Your task to perform on an android device: delete browsing data in the chrome app Image 0: 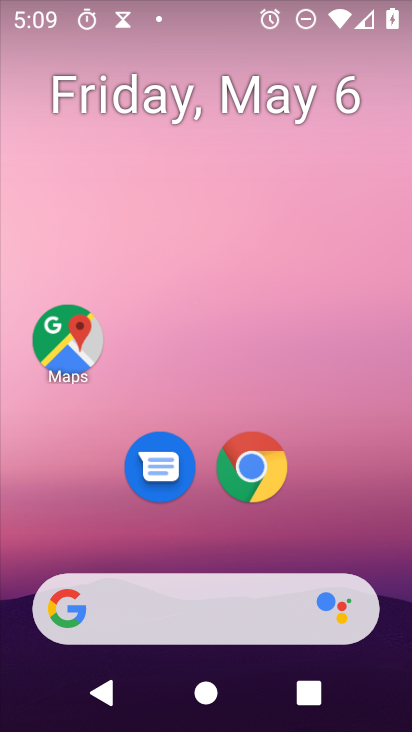
Step 0: drag from (294, 476) to (264, 215)
Your task to perform on an android device: delete browsing data in the chrome app Image 1: 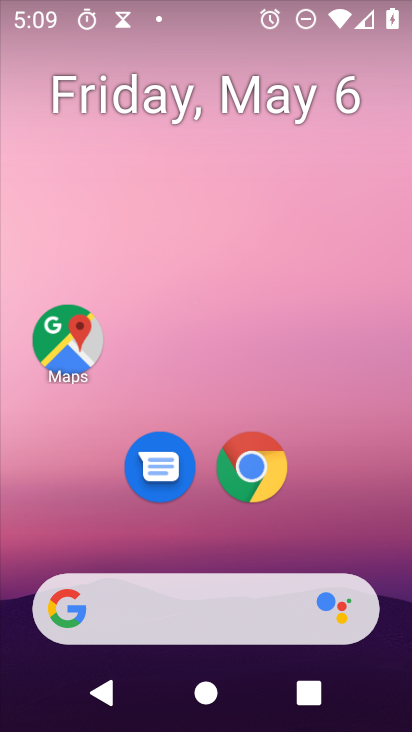
Step 1: drag from (333, 527) to (309, 87)
Your task to perform on an android device: delete browsing data in the chrome app Image 2: 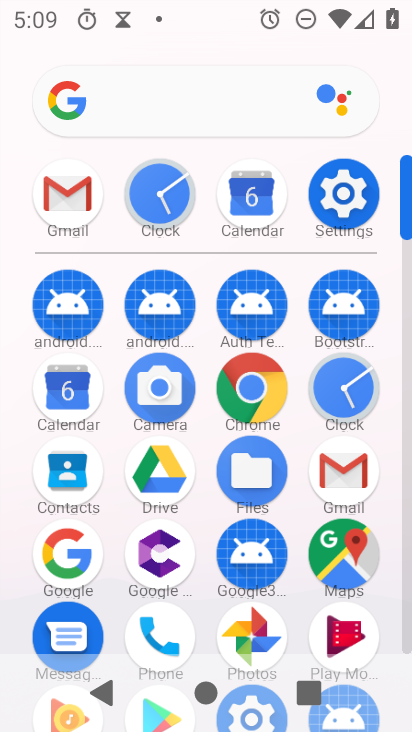
Step 2: click (406, 188)
Your task to perform on an android device: delete browsing data in the chrome app Image 3: 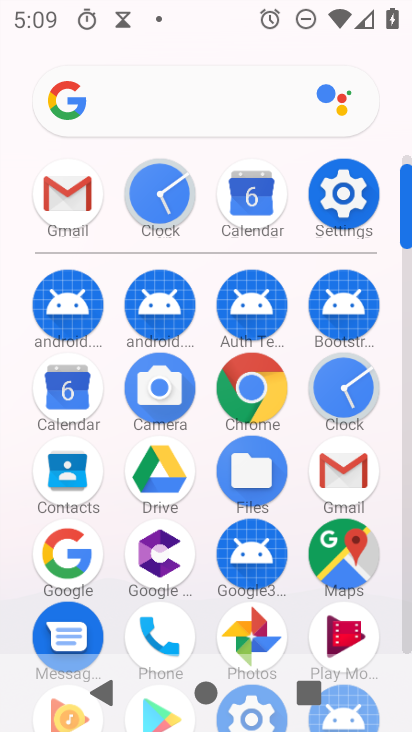
Step 3: drag from (203, 615) to (164, 318)
Your task to perform on an android device: delete browsing data in the chrome app Image 4: 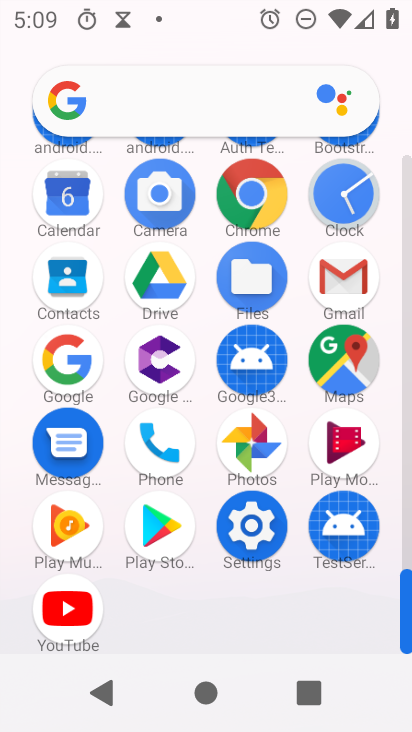
Step 4: drag from (218, 572) to (235, 281)
Your task to perform on an android device: delete browsing data in the chrome app Image 5: 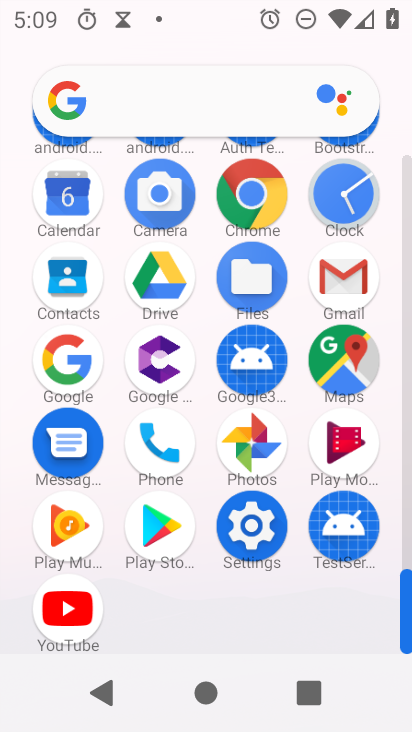
Step 5: click (240, 211)
Your task to perform on an android device: delete browsing data in the chrome app Image 6: 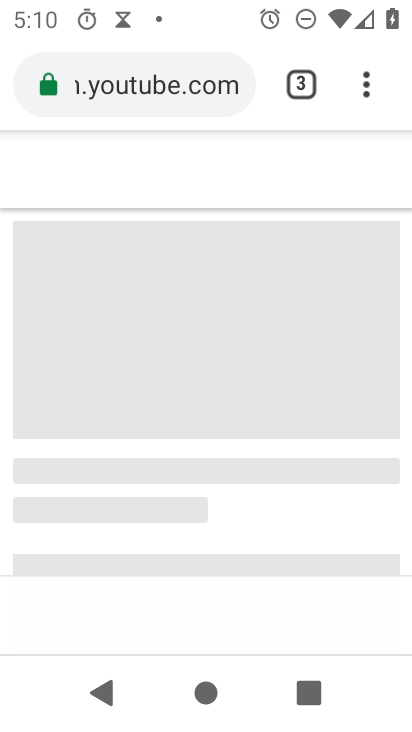
Step 6: click (373, 89)
Your task to perform on an android device: delete browsing data in the chrome app Image 7: 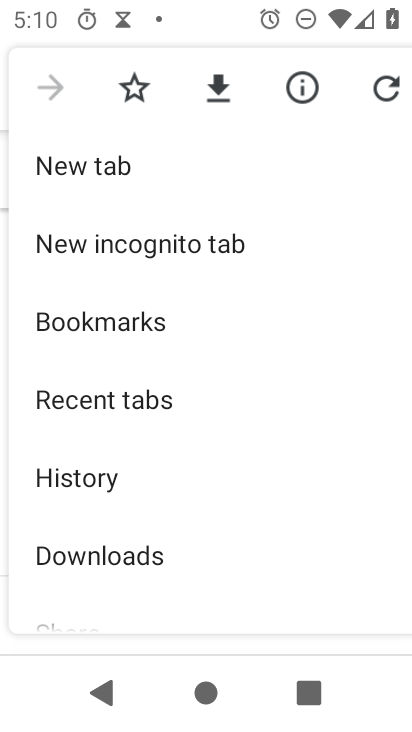
Step 7: click (90, 468)
Your task to perform on an android device: delete browsing data in the chrome app Image 8: 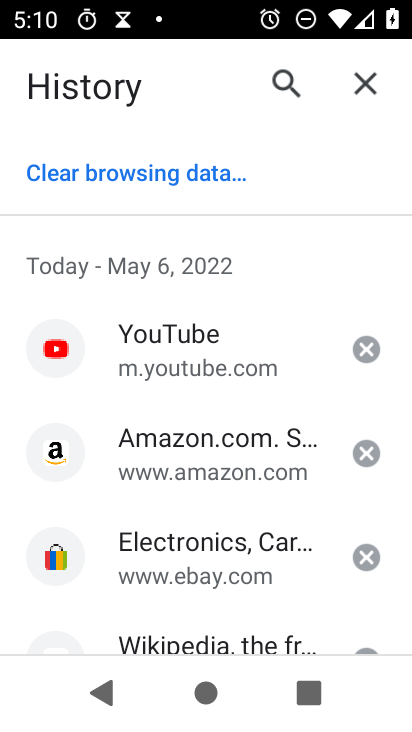
Step 8: click (183, 148)
Your task to perform on an android device: delete browsing data in the chrome app Image 9: 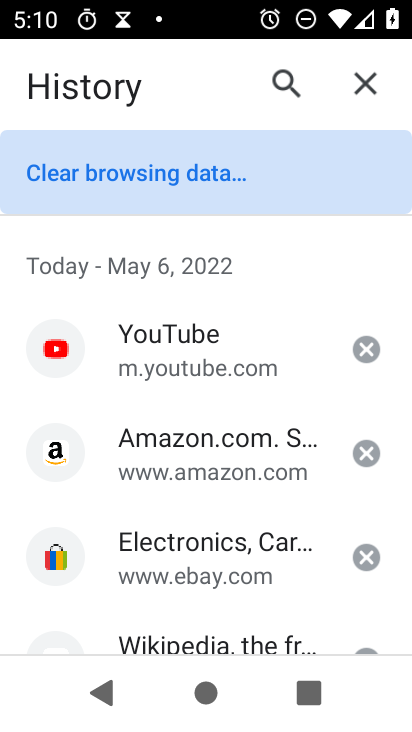
Step 9: click (169, 173)
Your task to perform on an android device: delete browsing data in the chrome app Image 10: 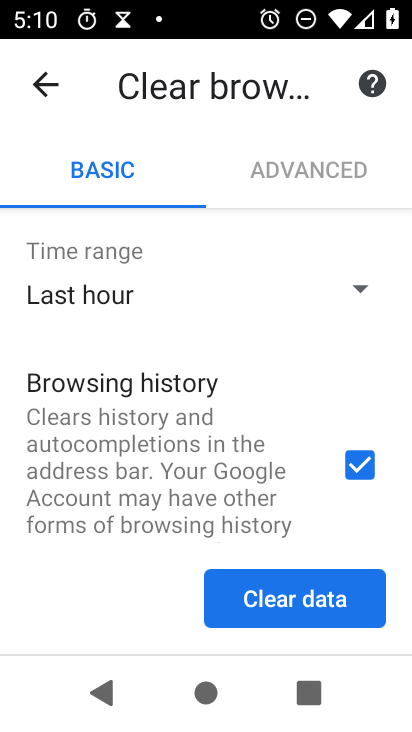
Step 10: click (405, 320)
Your task to perform on an android device: delete browsing data in the chrome app Image 11: 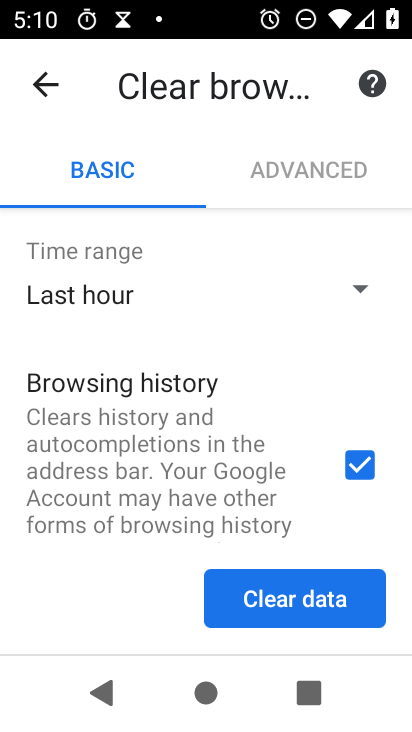
Step 11: drag from (212, 516) to (223, 297)
Your task to perform on an android device: delete browsing data in the chrome app Image 12: 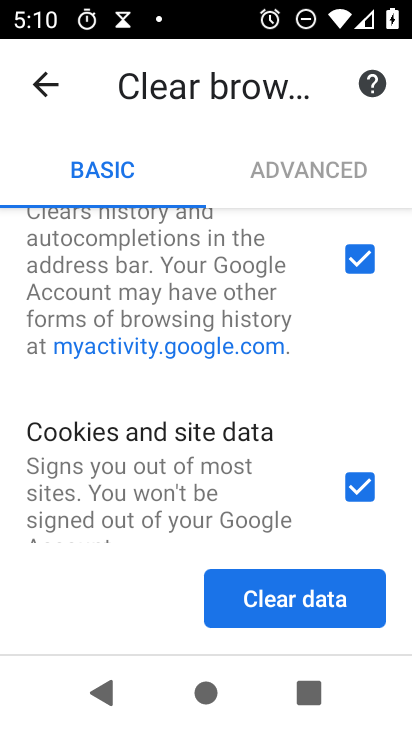
Step 12: click (256, 623)
Your task to perform on an android device: delete browsing data in the chrome app Image 13: 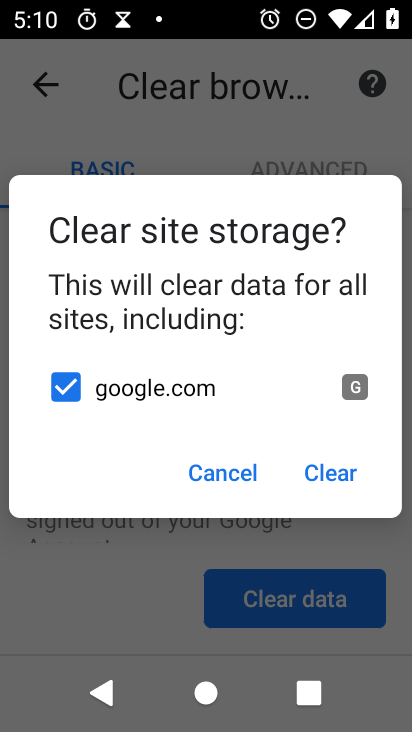
Step 13: click (356, 462)
Your task to perform on an android device: delete browsing data in the chrome app Image 14: 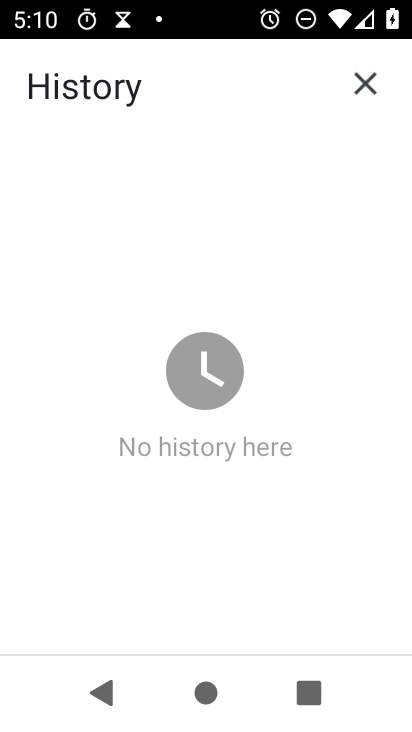
Step 14: task complete